Your task to perform on an android device: Open privacy settings Image 0: 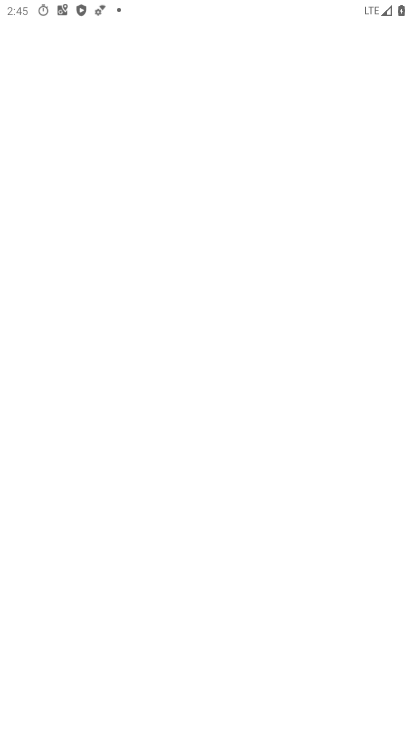
Step 0: press home button
Your task to perform on an android device: Open privacy settings Image 1: 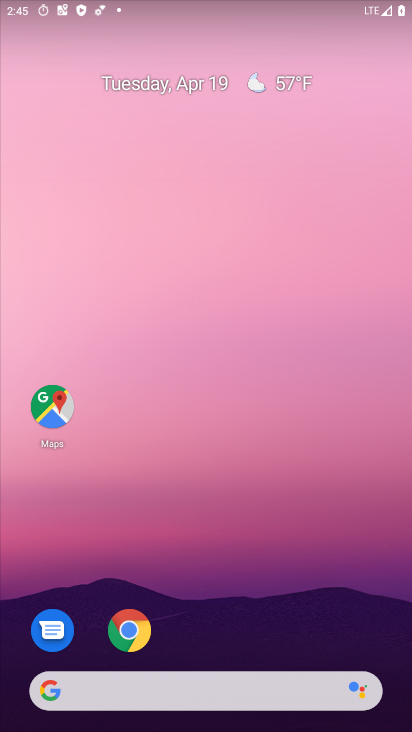
Step 1: drag from (207, 620) to (217, 111)
Your task to perform on an android device: Open privacy settings Image 2: 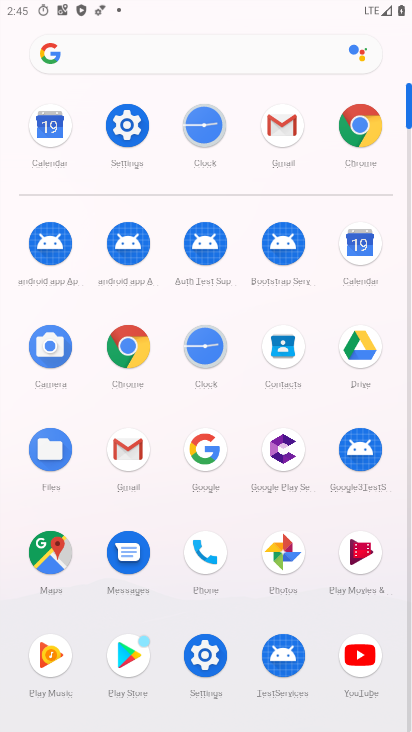
Step 2: click (129, 121)
Your task to perform on an android device: Open privacy settings Image 3: 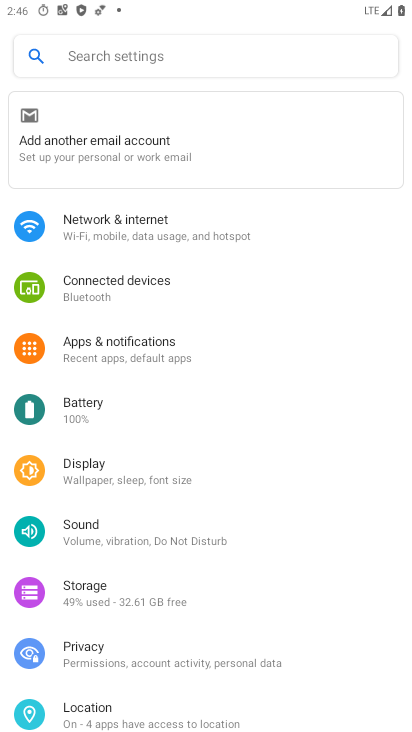
Step 3: click (93, 642)
Your task to perform on an android device: Open privacy settings Image 4: 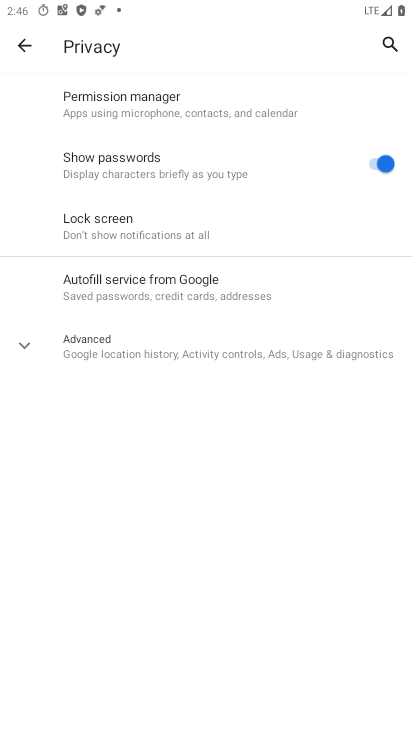
Step 4: task complete